Your task to perform on an android device: Toggle the flashlight Image 0: 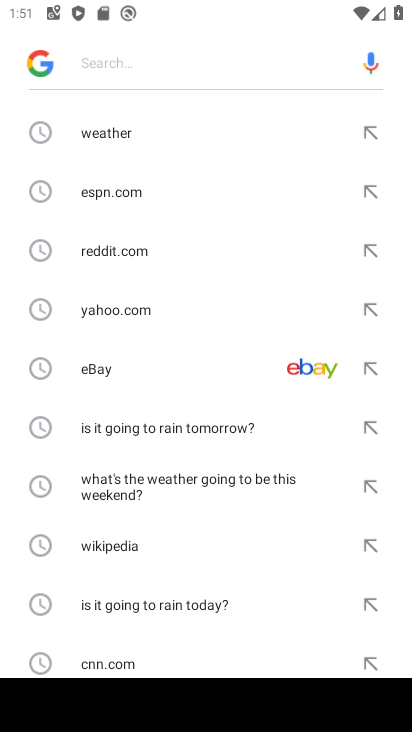
Step 0: press home button
Your task to perform on an android device: Toggle the flashlight Image 1: 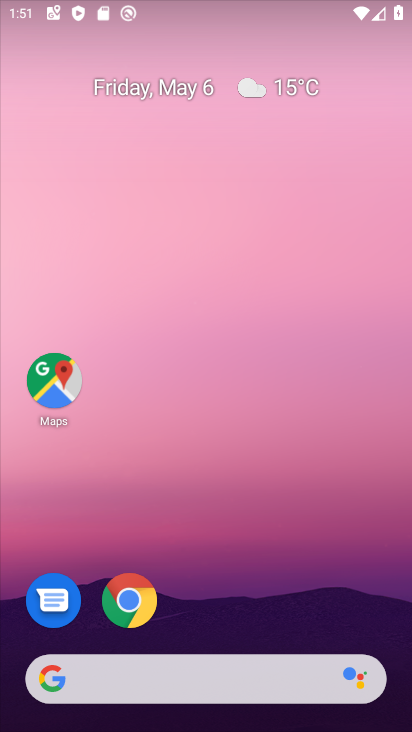
Step 1: drag from (340, 623) to (302, 36)
Your task to perform on an android device: Toggle the flashlight Image 2: 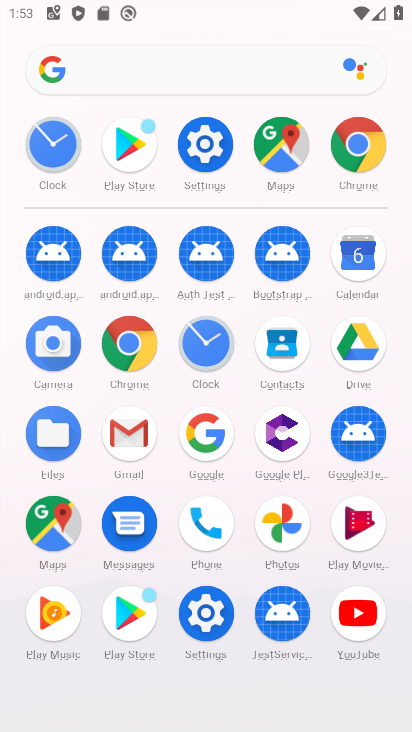
Step 2: click (212, 132)
Your task to perform on an android device: Toggle the flashlight Image 3: 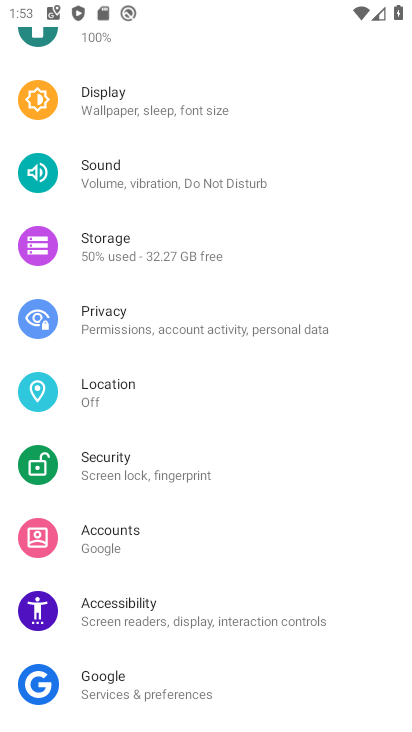
Step 3: task complete